Your task to perform on an android device: Look up the best rated Nike shoes on Nike.com Image 0: 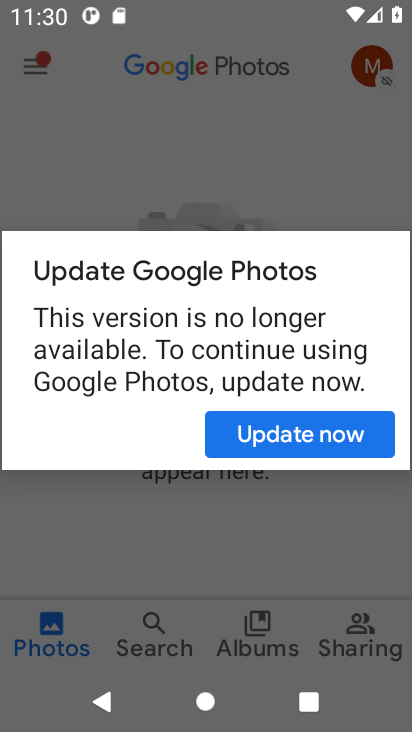
Step 0: press home button
Your task to perform on an android device: Look up the best rated Nike shoes on Nike.com Image 1: 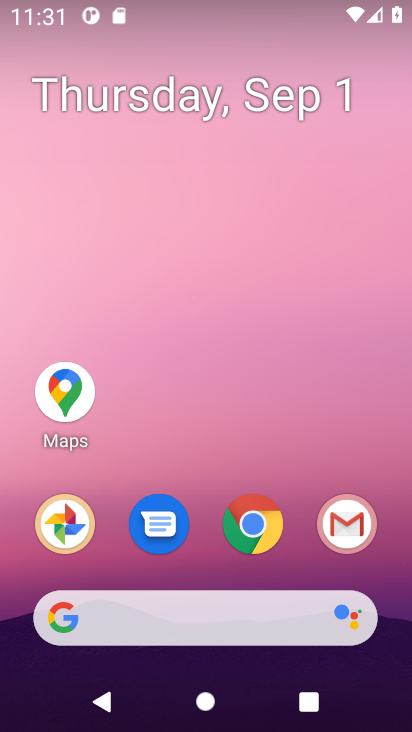
Step 1: click (259, 519)
Your task to perform on an android device: Look up the best rated Nike shoes on Nike.com Image 2: 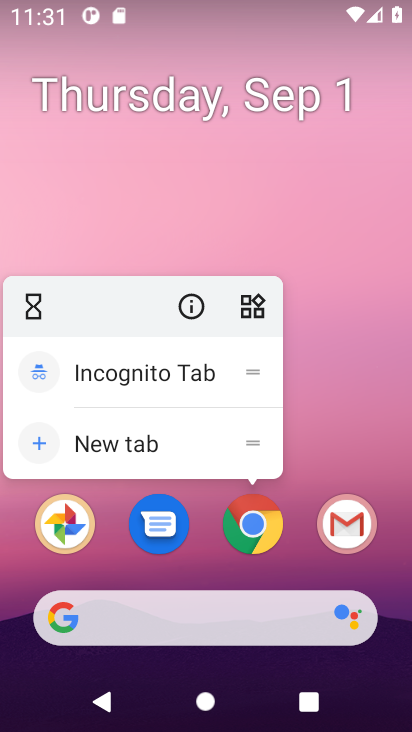
Step 2: click (105, 441)
Your task to perform on an android device: Look up the best rated Nike shoes on Nike.com Image 3: 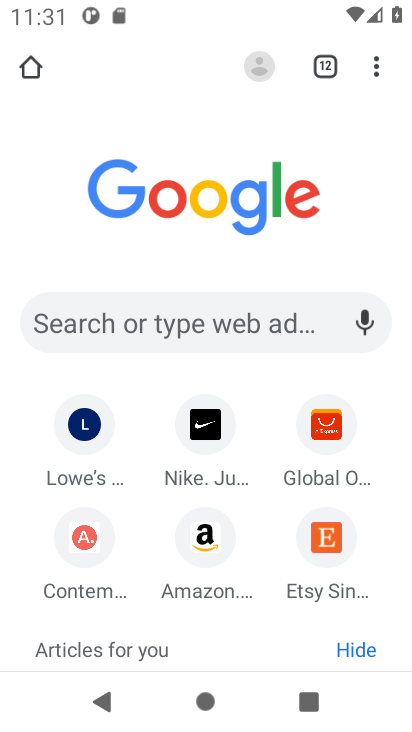
Step 3: click (246, 317)
Your task to perform on an android device: Look up the best rated Nike shoes on Nike.com Image 4: 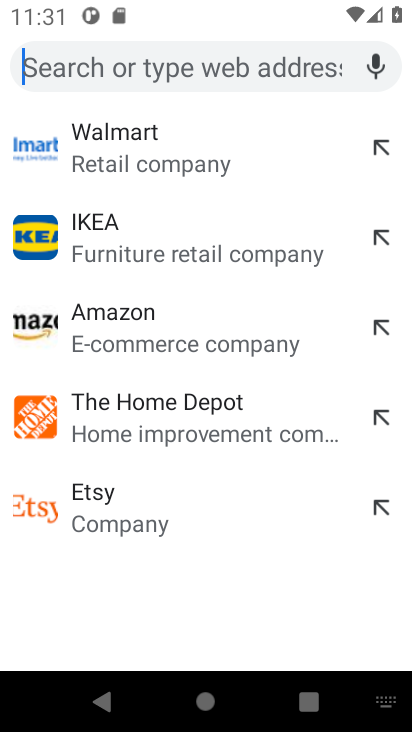
Step 4: press enter
Your task to perform on an android device: Look up the best rated Nike shoes on Nike.com Image 5: 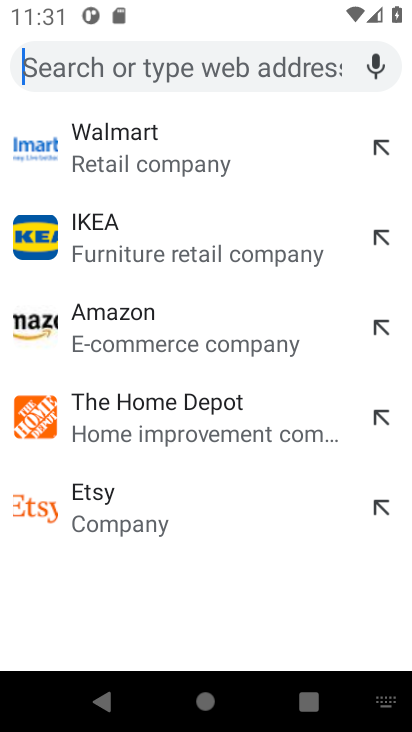
Step 5: type "nike.com"
Your task to perform on an android device: Look up the best rated Nike shoes on Nike.com Image 6: 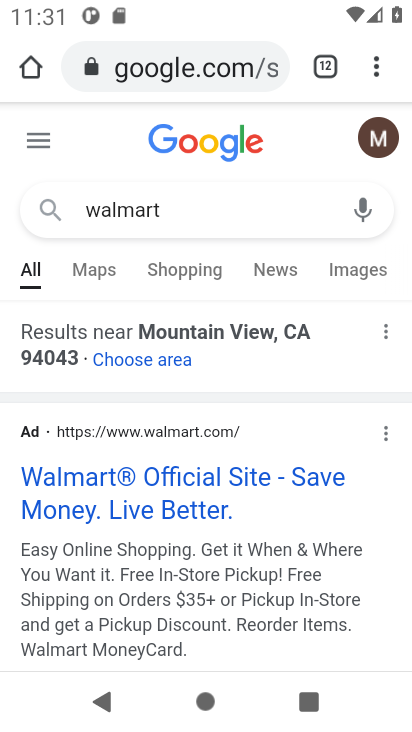
Step 6: click (215, 66)
Your task to perform on an android device: Look up the best rated Nike shoes on Nike.com Image 7: 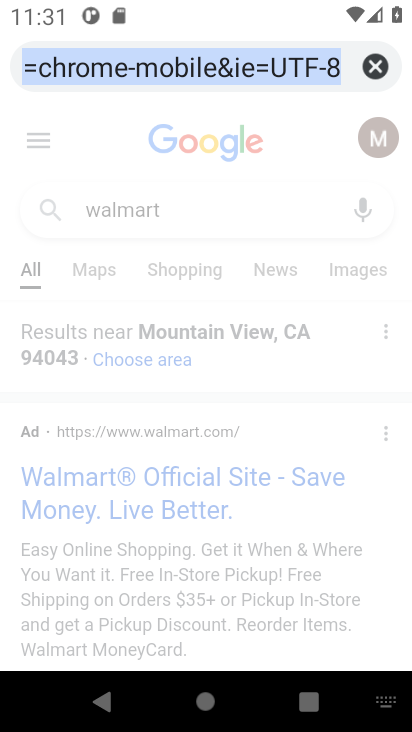
Step 7: type "nike.com"
Your task to perform on an android device: Look up the best rated Nike shoes on Nike.com Image 8: 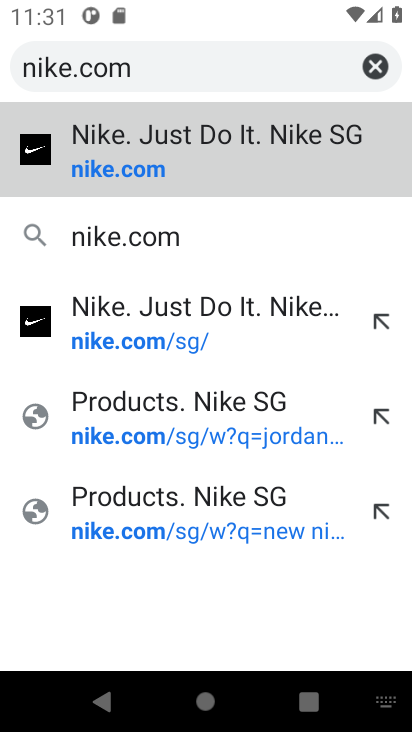
Step 8: click (128, 242)
Your task to perform on an android device: Look up the best rated Nike shoes on Nike.com Image 9: 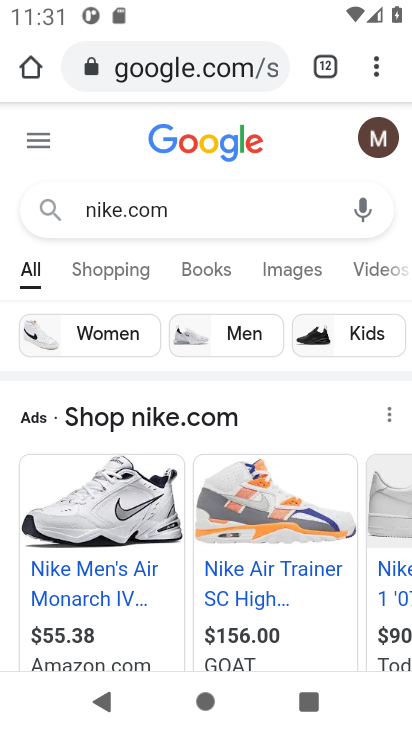
Step 9: drag from (186, 571) to (200, 277)
Your task to perform on an android device: Look up the best rated Nike shoes on Nike.com Image 10: 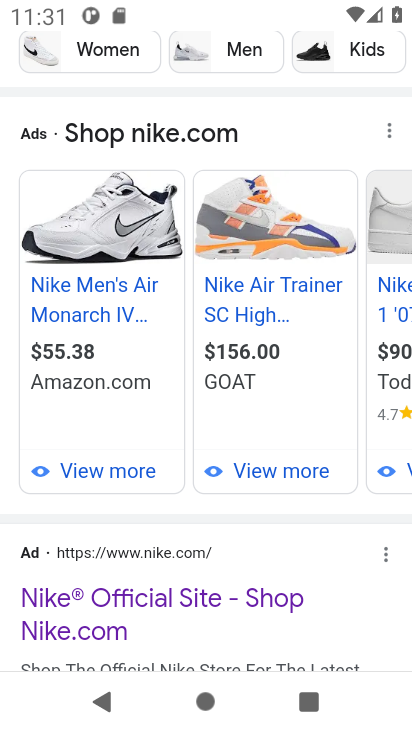
Step 10: click (182, 598)
Your task to perform on an android device: Look up the best rated Nike shoes on Nike.com Image 11: 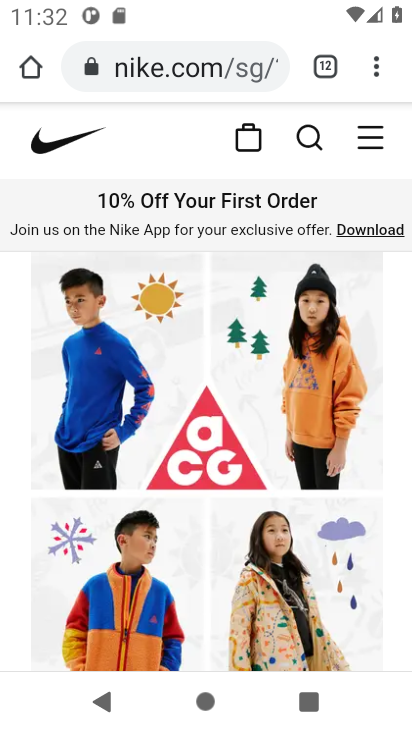
Step 11: click (308, 128)
Your task to perform on an android device: Look up the best rated Nike shoes on Nike.com Image 12: 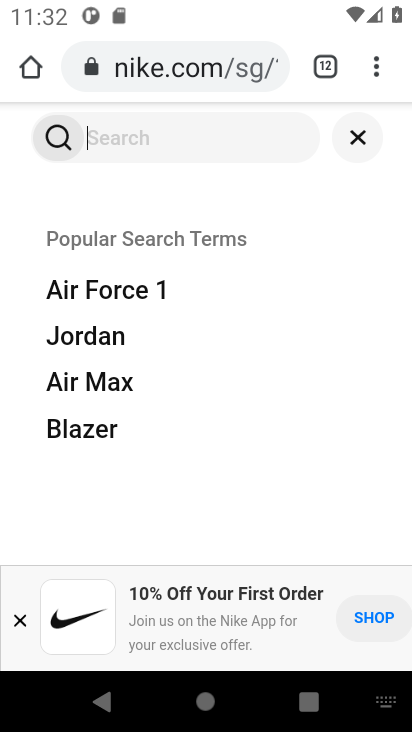
Step 12: click (195, 133)
Your task to perform on an android device: Look up the best rated Nike shoes on Nike.com Image 13: 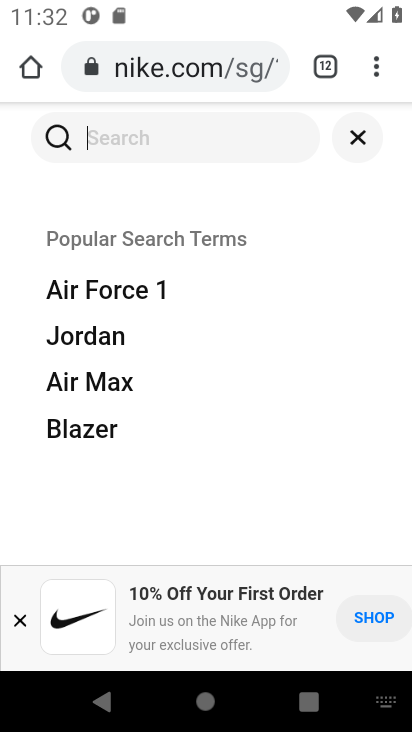
Step 13: press enter
Your task to perform on an android device: Look up the best rated Nike shoes on Nike.com Image 14: 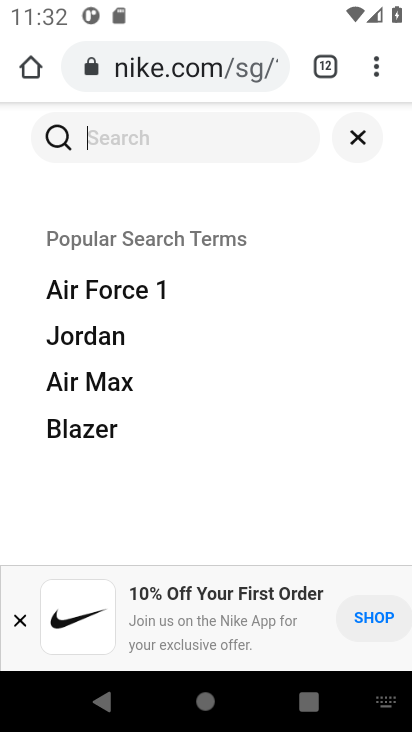
Step 14: type "best rated Nike shoes"
Your task to perform on an android device: Look up the best rated Nike shoes on Nike.com Image 15: 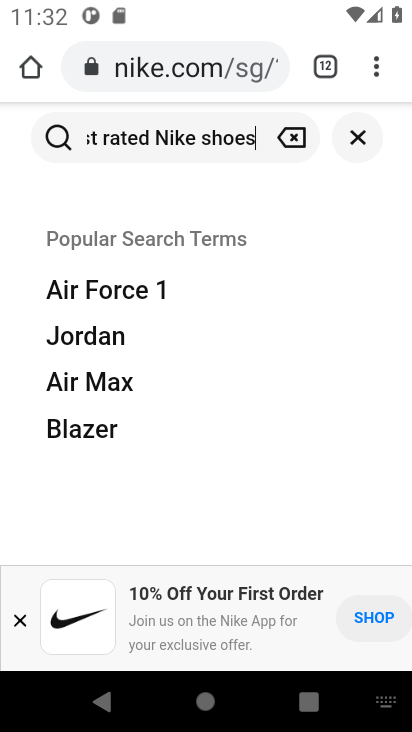
Step 15: click (53, 121)
Your task to perform on an android device: Look up the best rated Nike shoes on Nike.com Image 16: 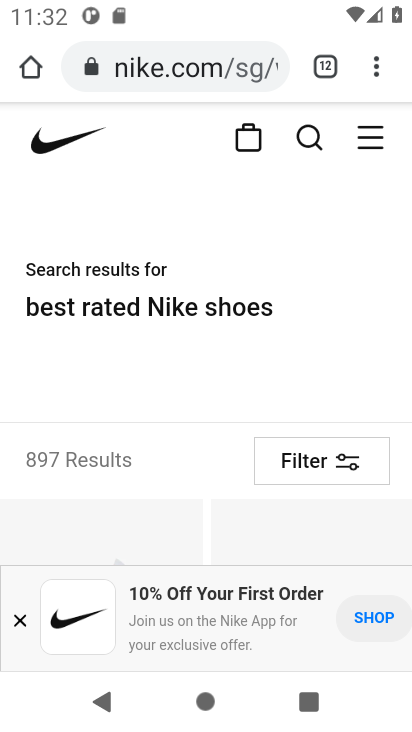
Step 16: task complete